Your task to perform on an android device: Open Chrome and go to the settings page Image 0: 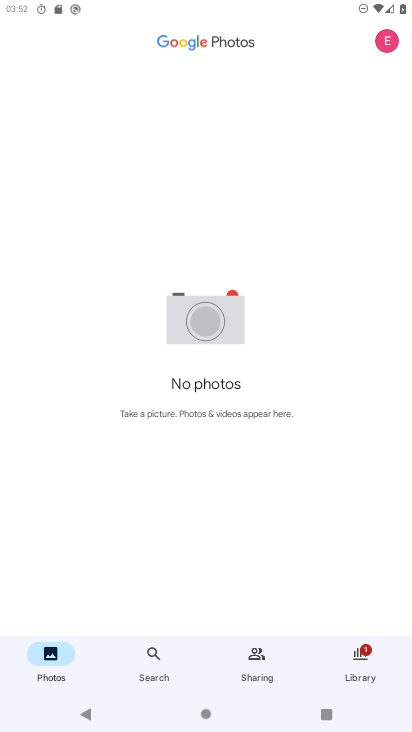
Step 0: press home button
Your task to perform on an android device: Open Chrome and go to the settings page Image 1: 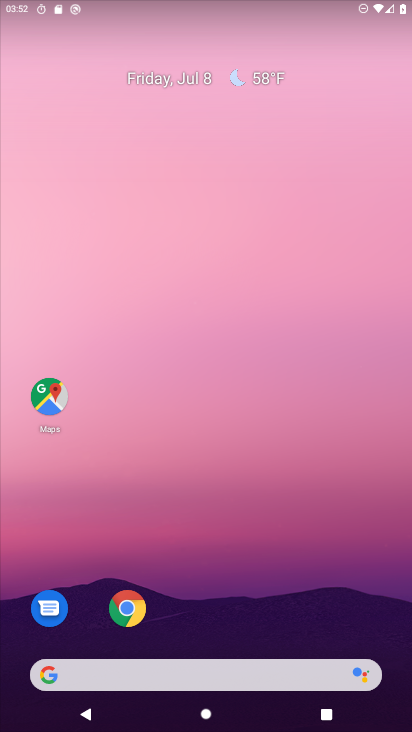
Step 1: click (128, 605)
Your task to perform on an android device: Open Chrome and go to the settings page Image 2: 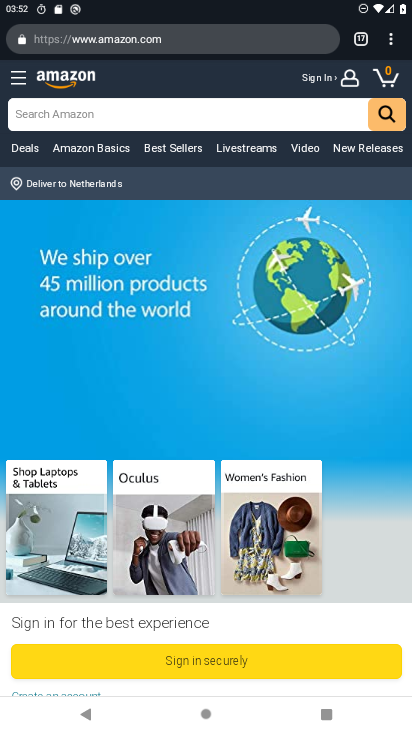
Step 2: click (392, 46)
Your task to perform on an android device: Open Chrome and go to the settings page Image 3: 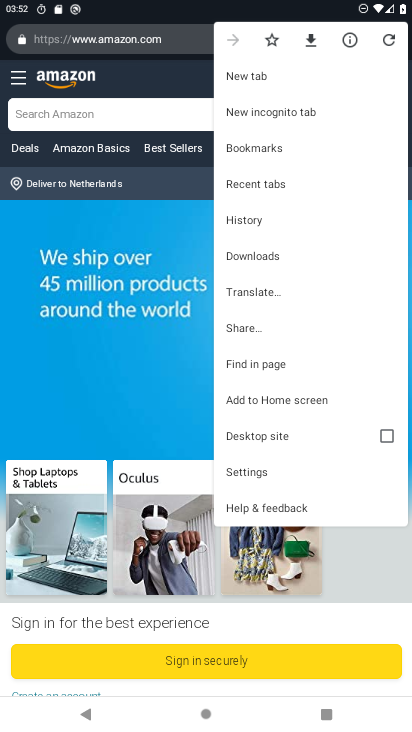
Step 3: click (254, 468)
Your task to perform on an android device: Open Chrome and go to the settings page Image 4: 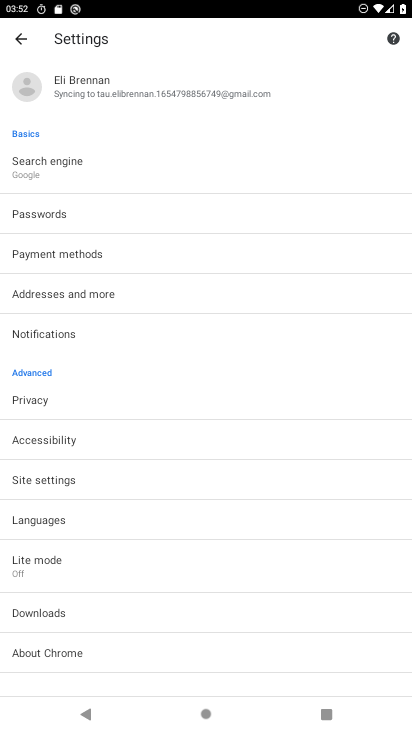
Step 4: task complete